Your task to perform on an android device: Show me popular games on the Play Store Image 0: 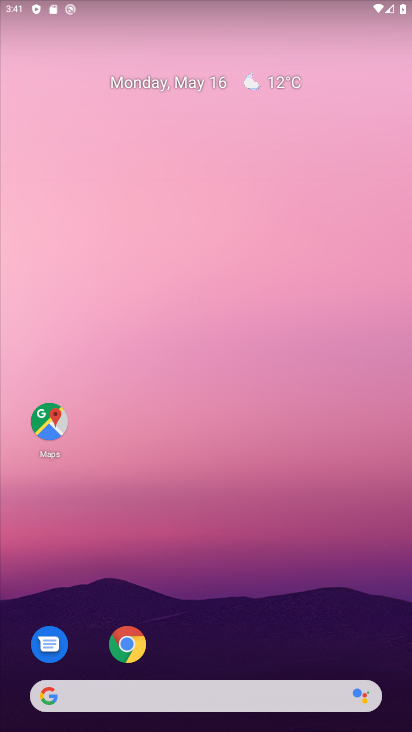
Step 0: drag from (179, 623) to (271, 193)
Your task to perform on an android device: Show me popular games on the Play Store Image 1: 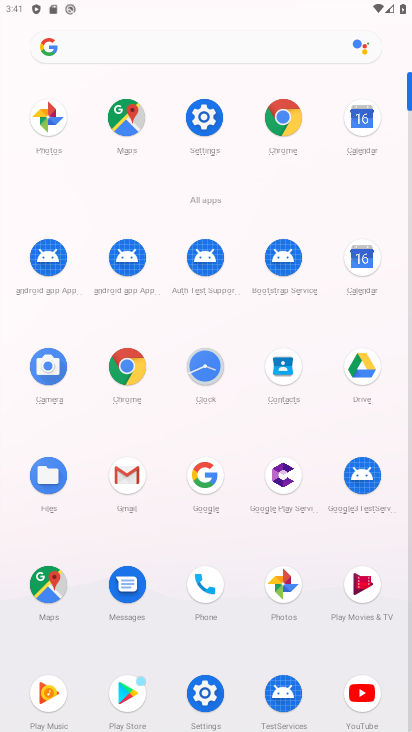
Step 1: click (128, 690)
Your task to perform on an android device: Show me popular games on the Play Store Image 2: 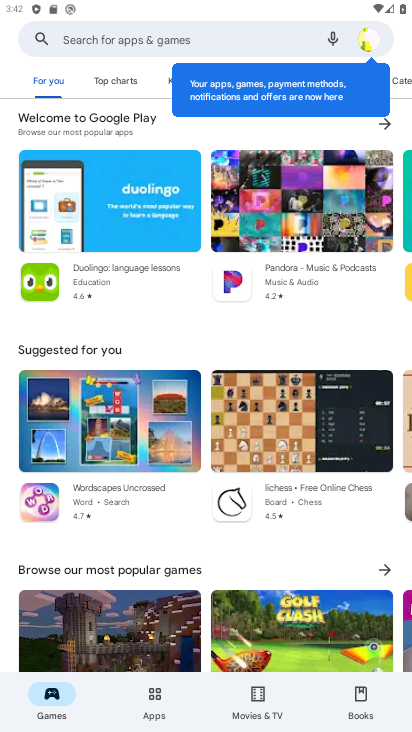
Step 2: click (57, 710)
Your task to perform on an android device: Show me popular games on the Play Store Image 3: 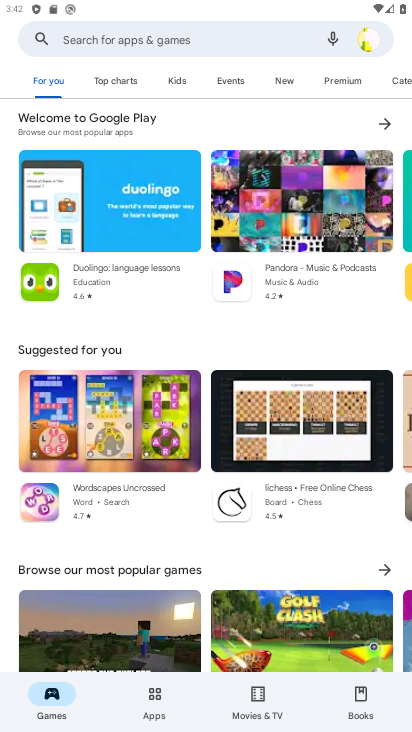
Step 3: click (385, 566)
Your task to perform on an android device: Show me popular games on the Play Store Image 4: 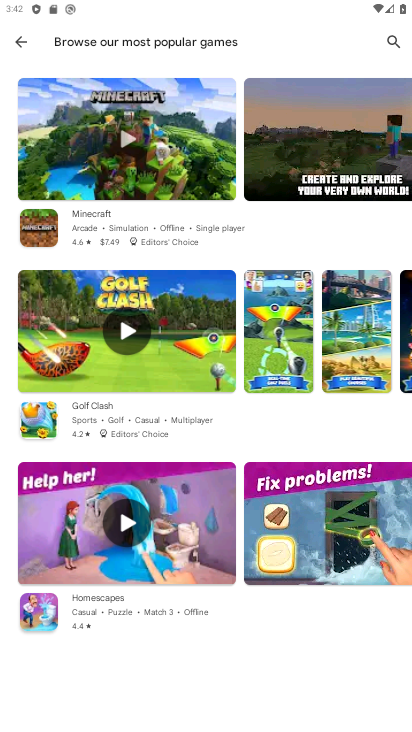
Step 4: task complete